Your task to perform on an android device: visit the assistant section in the google photos Image 0: 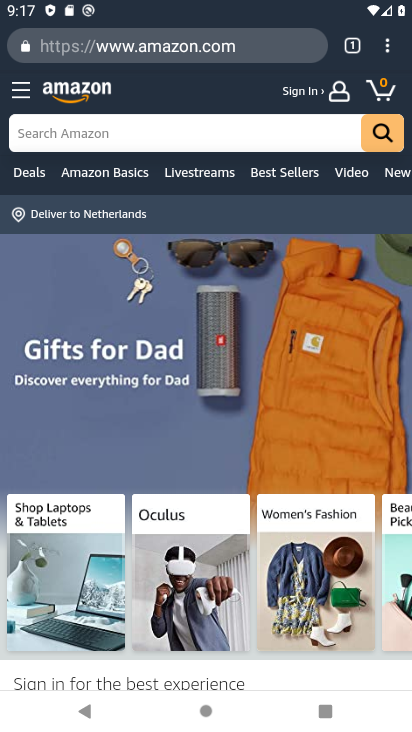
Step 0: press home button
Your task to perform on an android device: visit the assistant section in the google photos Image 1: 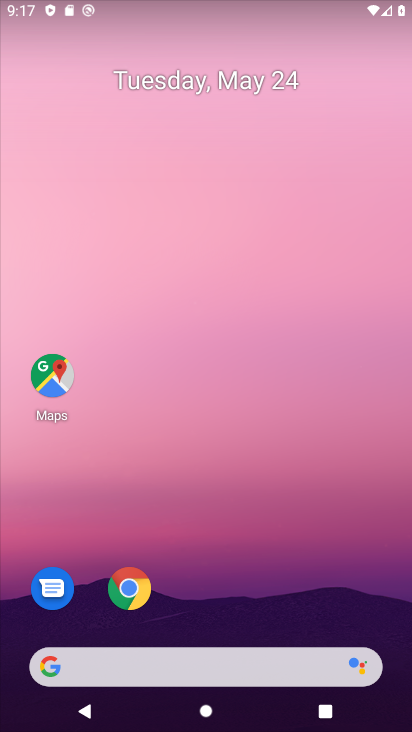
Step 1: drag from (259, 568) to (325, 23)
Your task to perform on an android device: visit the assistant section in the google photos Image 2: 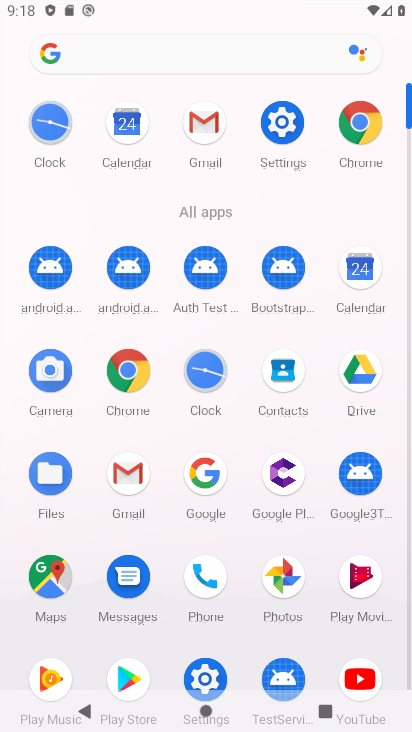
Step 2: click (271, 579)
Your task to perform on an android device: visit the assistant section in the google photos Image 3: 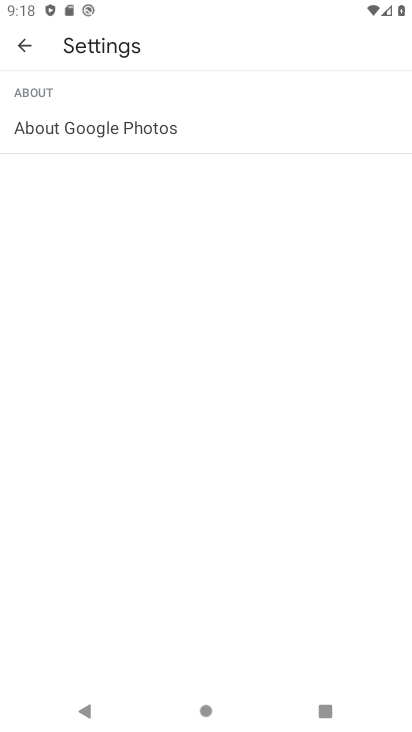
Step 3: press back button
Your task to perform on an android device: visit the assistant section in the google photos Image 4: 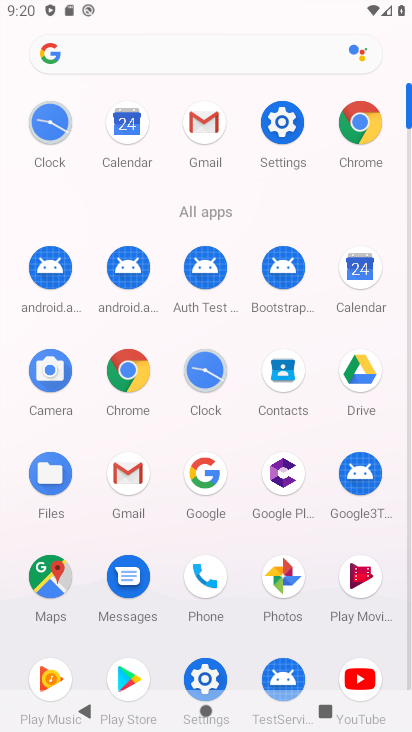
Step 4: click (283, 585)
Your task to perform on an android device: visit the assistant section in the google photos Image 5: 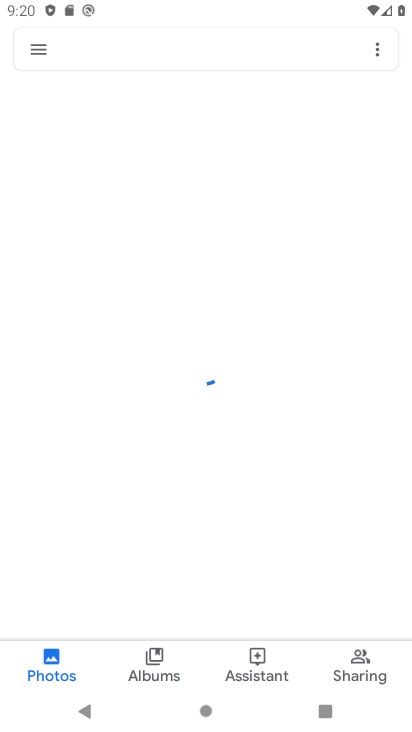
Step 5: click (242, 676)
Your task to perform on an android device: visit the assistant section in the google photos Image 6: 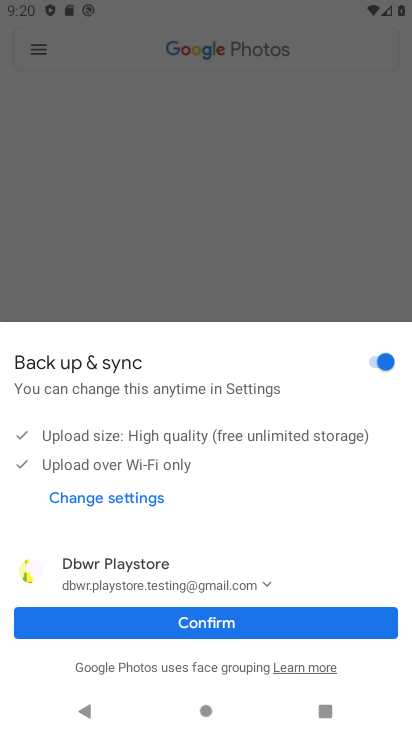
Step 6: click (227, 627)
Your task to perform on an android device: visit the assistant section in the google photos Image 7: 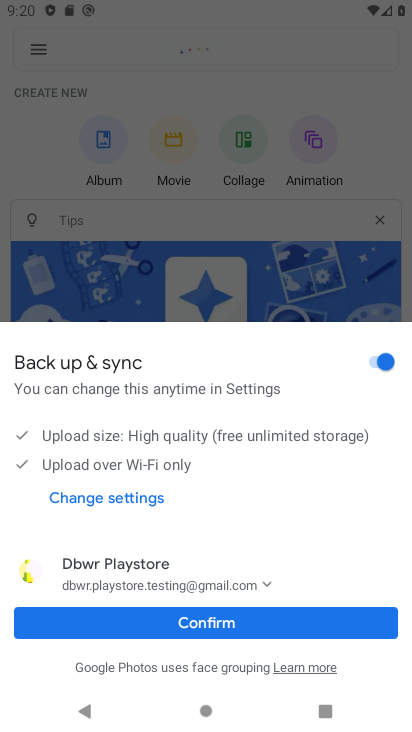
Step 7: click (243, 621)
Your task to perform on an android device: visit the assistant section in the google photos Image 8: 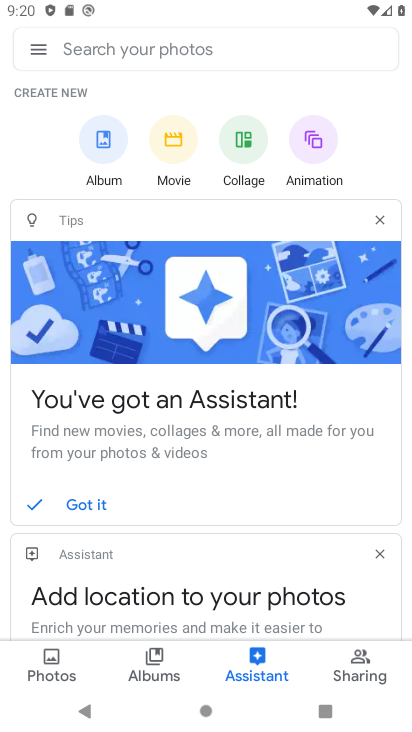
Step 8: task complete